Your task to perform on an android device: Open Android settings Image 0: 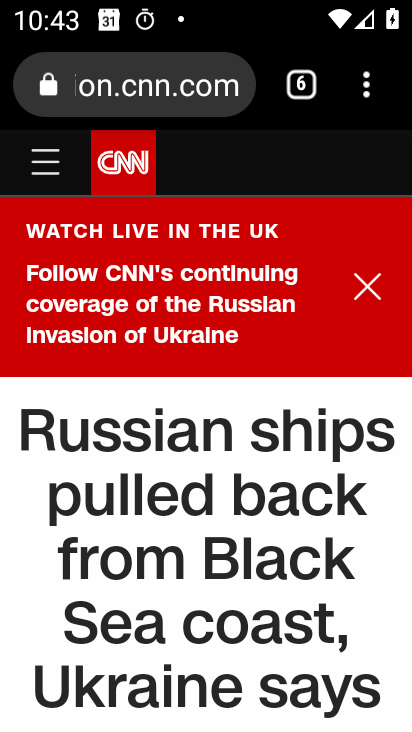
Step 0: press home button
Your task to perform on an android device: Open Android settings Image 1: 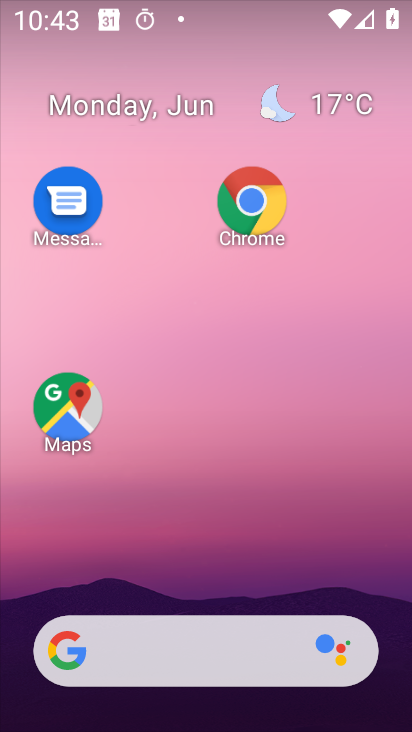
Step 1: drag from (194, 570) to (166, 23)
Your task to perform on an android device: Open Android settings Image 2: 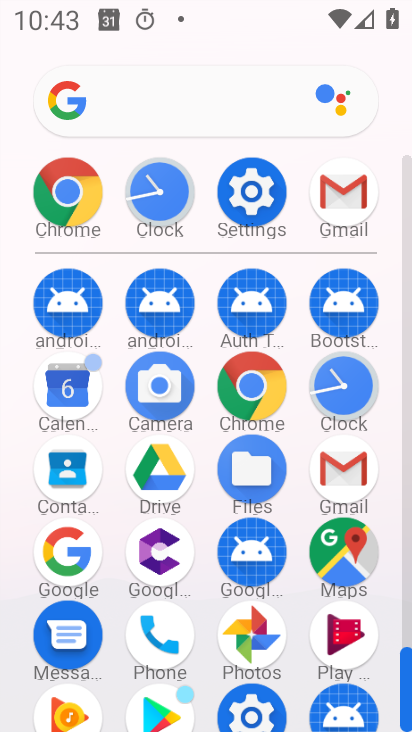
Step 2: click (230, 192)
Your task to perform on an android device: Open Android settings Image 3: 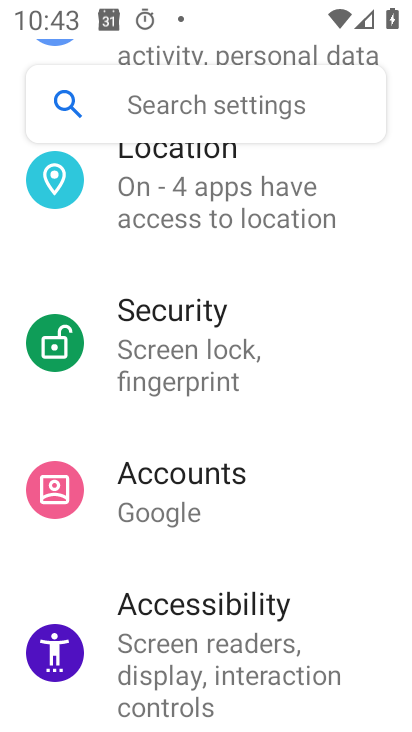
Step 3: task complete